Your task to perform on an android device: turn notification dots on Image 0: 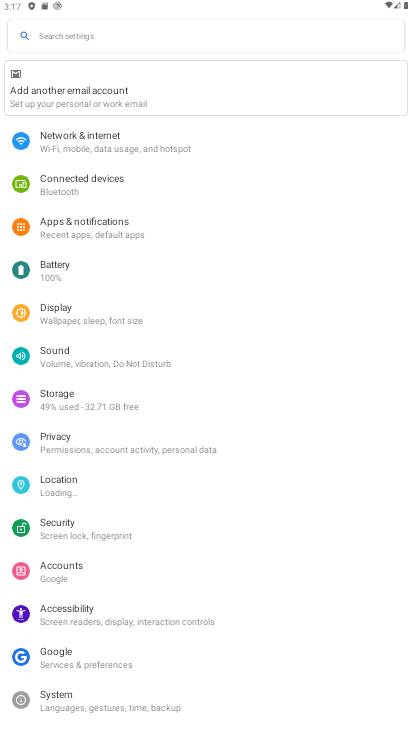
Step 0: press home button
Your task to perform on an android device: turn notification dots on Image 1: 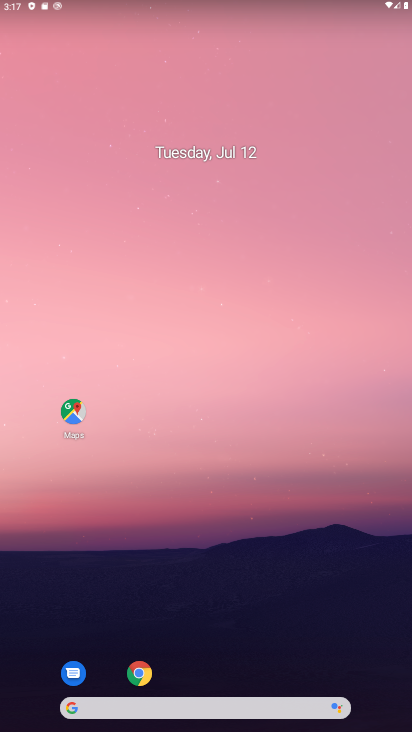
Step 1: drag from (159, 713) to (320, 50)
Your task to perform on an android device: turn notification dots on Image 2: 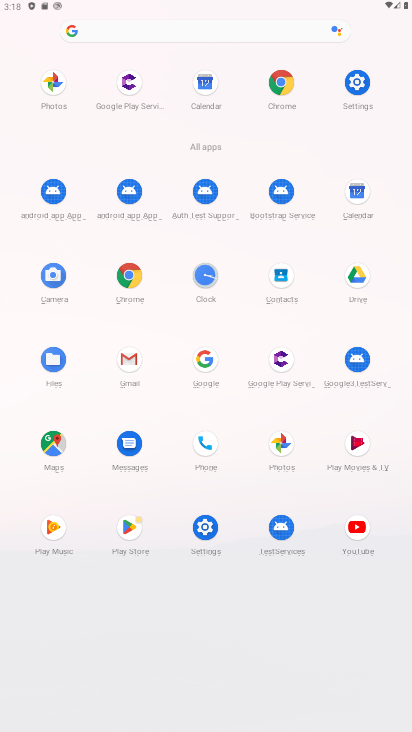
Step 2: click (205, 527)
Your task to perform on an android device: turn notification dots on Image 3: 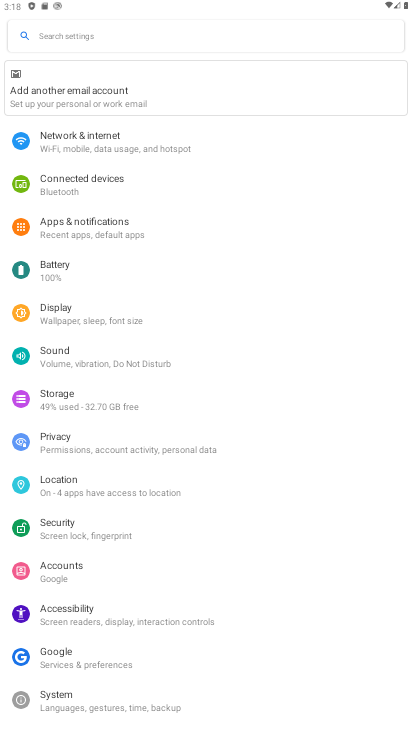
Step 3: click (60, 230)
Your task to perform on an android device: turn notification dots on Image 4: 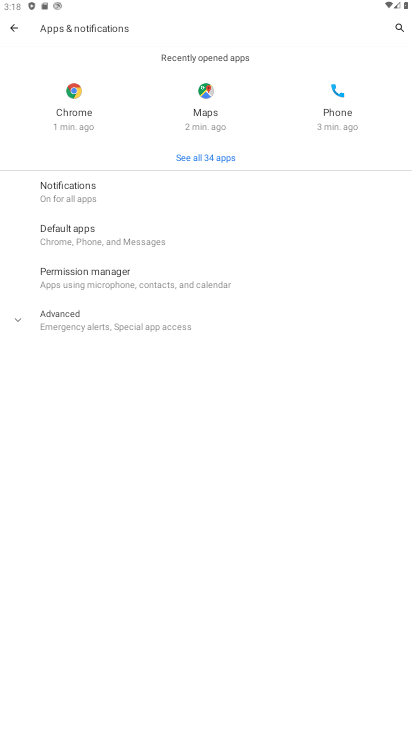
Step 4: click (76, 195)
Your task to perform on an android device: turn notification dots on Image 5: 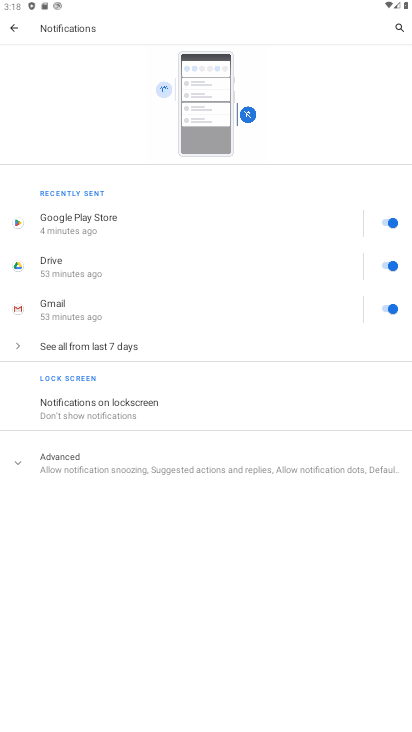
Step 5: click (67, 466)
Your task to perform on an android device: turn notification dots on Image 6: 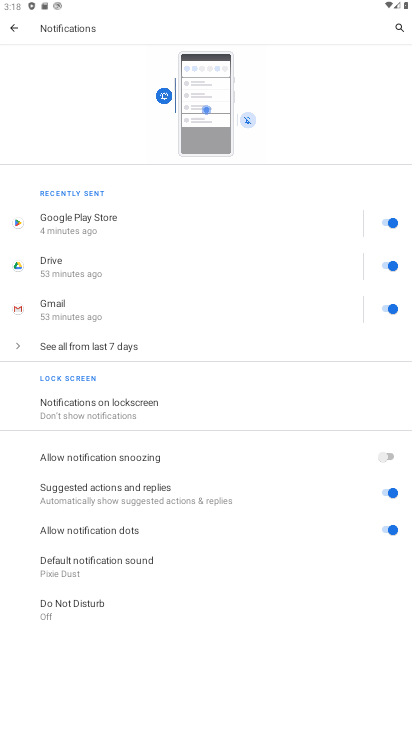
Step 6: task complete